Your task to perform on an android device: Search for sushi restaurants on Maps Image 0: 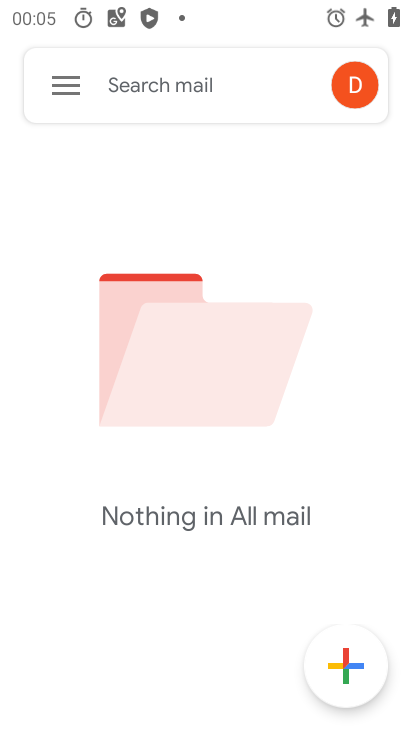
Step 0: press home button
Your task to perform on an android device: Search for sushi restaurants on Maps Image 1: 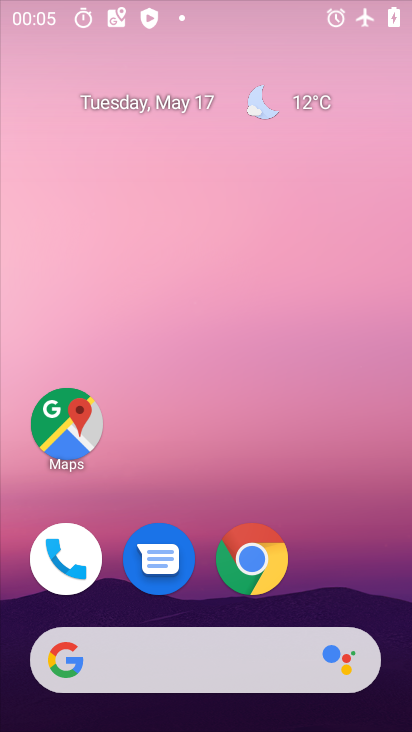
Step 1: click (340, 573)
Your task to perform on an android device: Search for sushi restaurants on Maps Image 2: 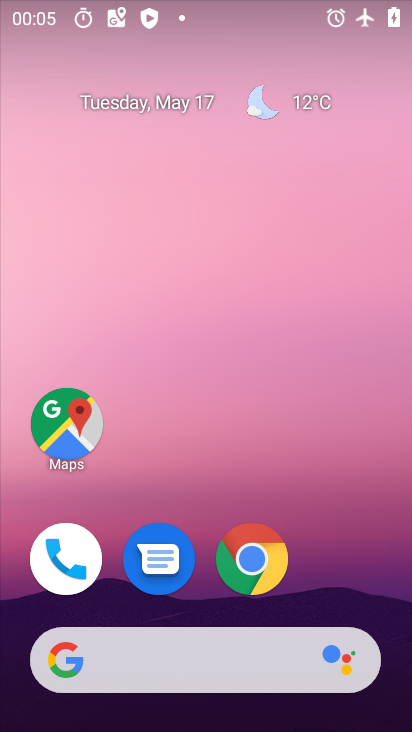
Step 2: click (73, 427)
Your task to perform on an android device: Search for sushi restaurants on Maps Image 3: 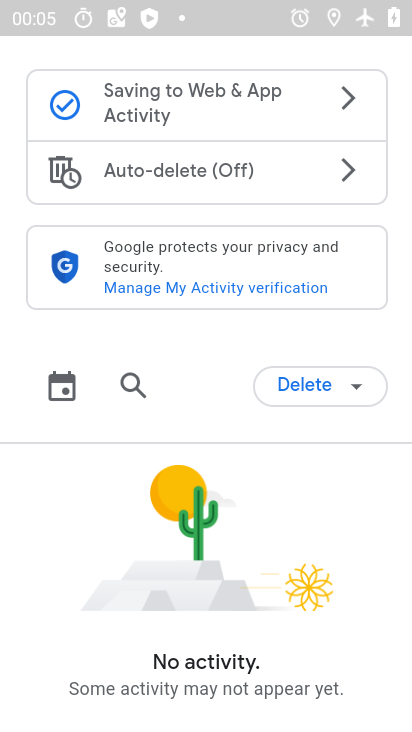
Step 3: drag from (296, 126) to (346, 556)
Your task to perform on an android device: Search for sushi restaurants on Maps Image 4: 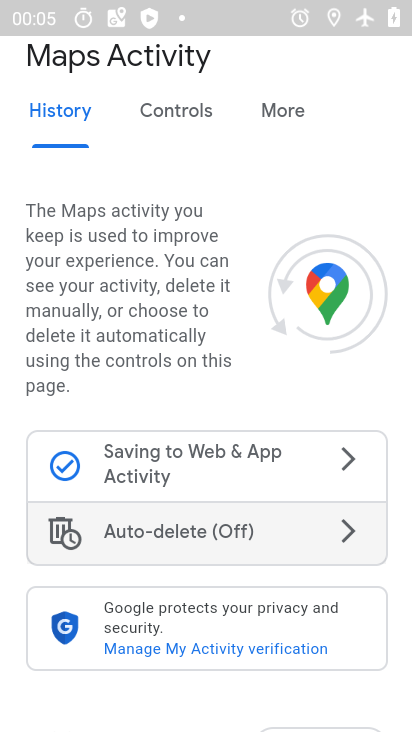
Step 4: drag from (245, 94) to (250, 454)
Your task to perform on an android device: Search for sushi restaurants on Maps Image 5: 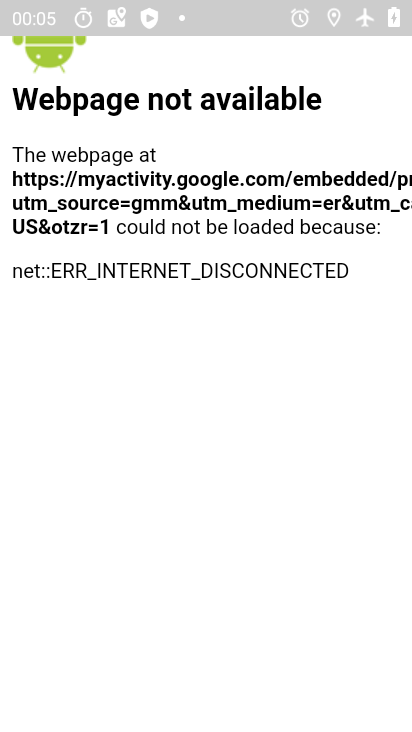
Step 5: press back button
Your task to perform on an android device: Search for sushi restaurants on Maps Image 6: 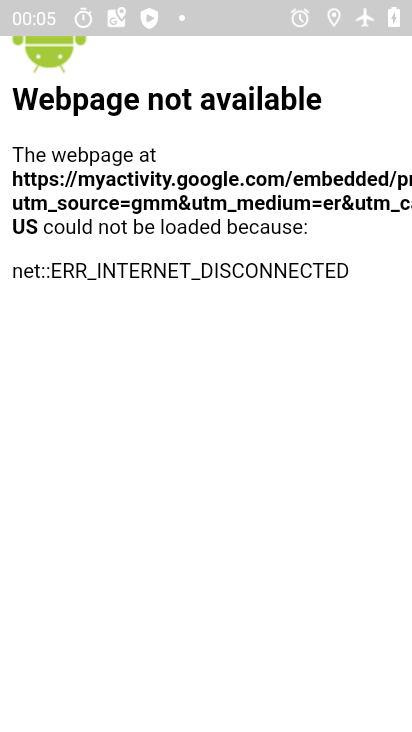
Step 6: press back button
Your task to perform on an android device: Search for sushi restaurants on Maps Image 7: 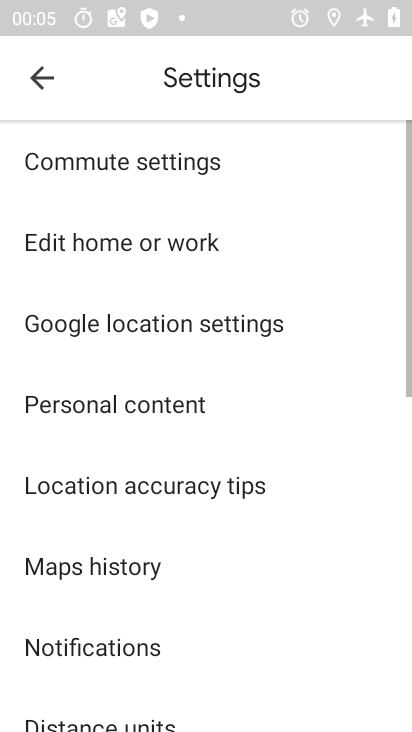
Step 7: press back button
Your task to perform on an android device: Search for sushi restaurants on Maps Image 8: 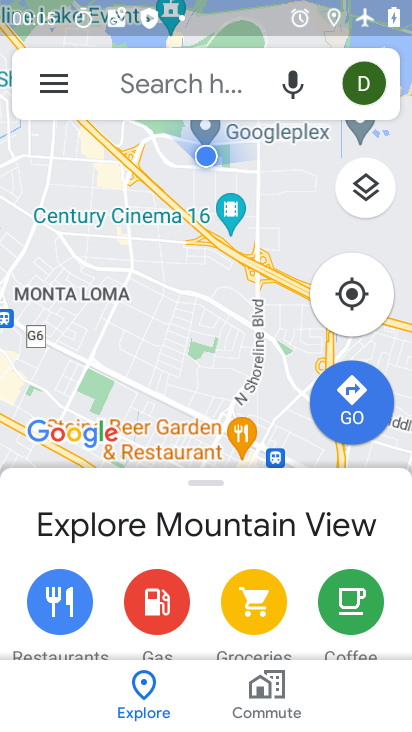
Step 8: click (216, 84)
Your task to perform on an android device: Search for sushi restaurants on Maps Image 9: 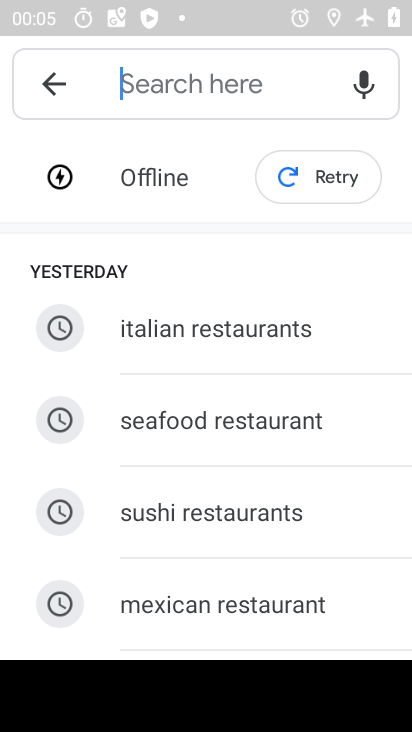
Step 9: click (229, 519)
Your task to perform on an android device: Search for sushi restaurants on Maps Image 10: 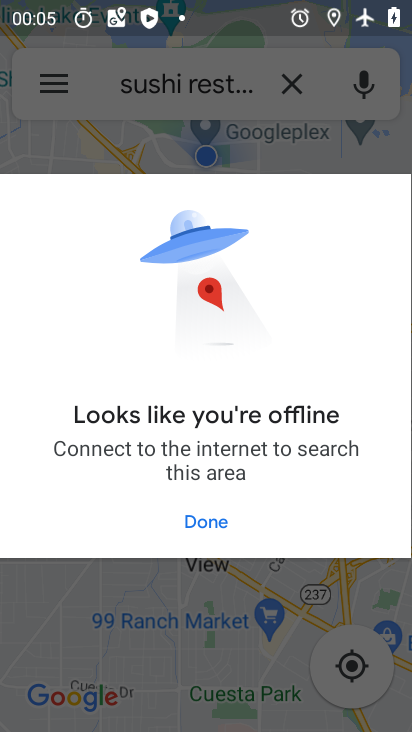
Step 10: task complete